Your task to perform on an android device: Open settings Image 0: 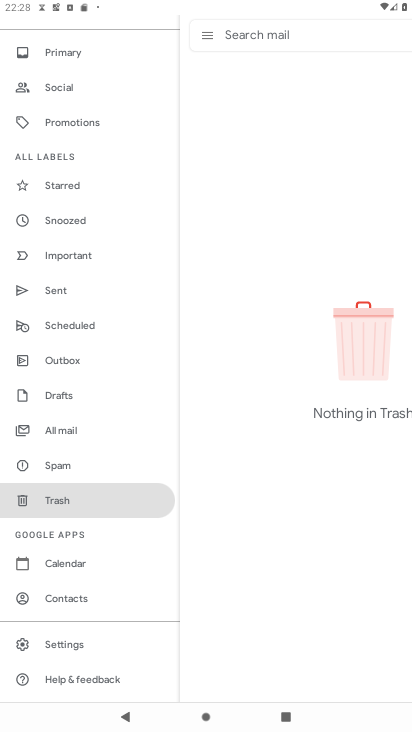
Step 0: click (42, 640)
Your task to perform on an android device: Open settings Image 1: 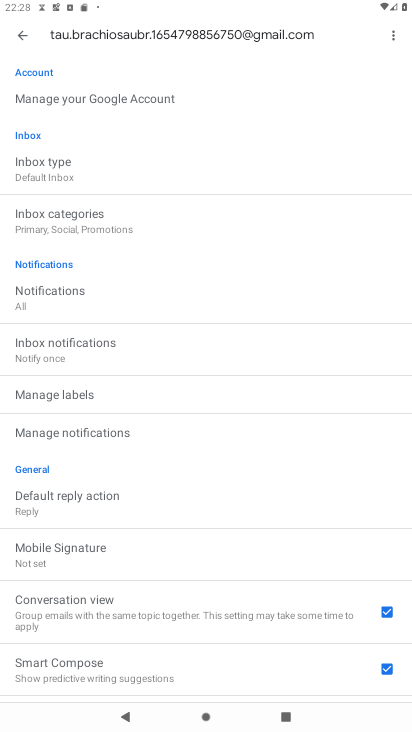
Step 1: task complete